Your task to perform on an android device: change the clock display to analog Image 0: 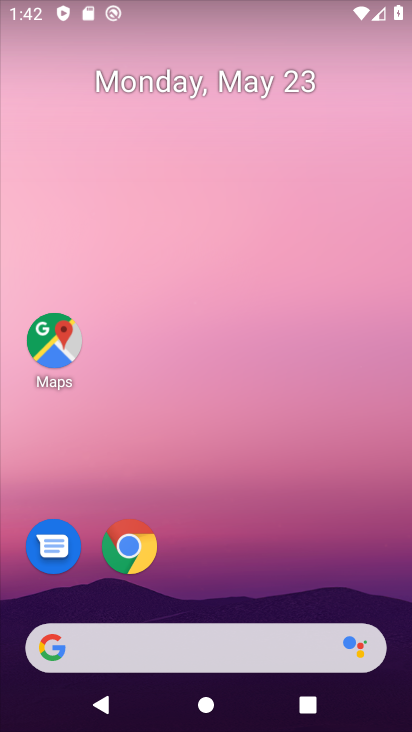
Step 0: drag from (222, 590) to (292, 100)
Your task to perform on an android device: change the clock display to analog Image 1: 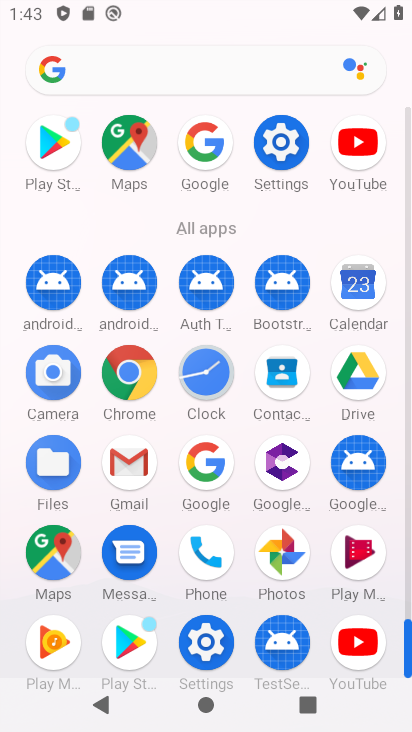
Step 1: click (225, 368)
Your task to perform on an android device: change the clock display to analog Image 2: 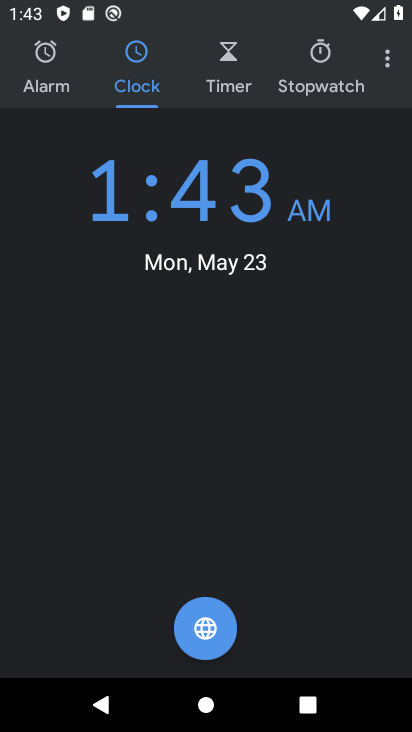
Step 2: click (385, 61)
Your task to perform on an android device: change the clock display to analog Image 3: 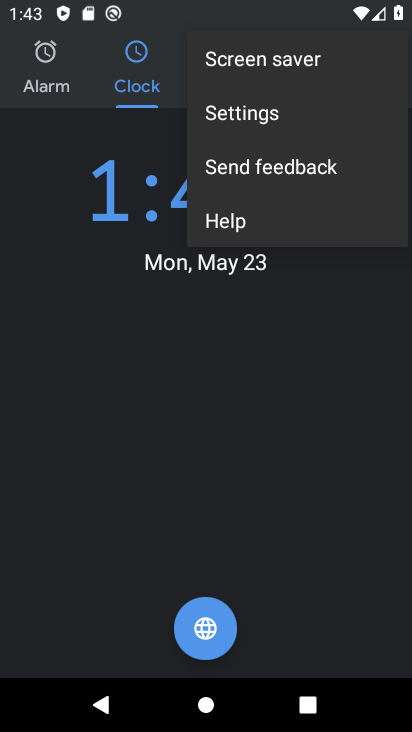
Step 3: click (267, 118)
Your task to perform on an android device: change the clock display to analog Image 4: 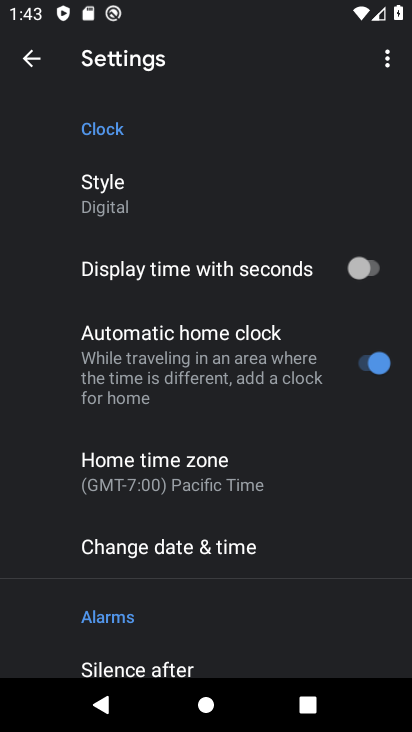
Step 4: click (126, 188)
Your task to perform on an android device: change the clock display to analog Image 5: 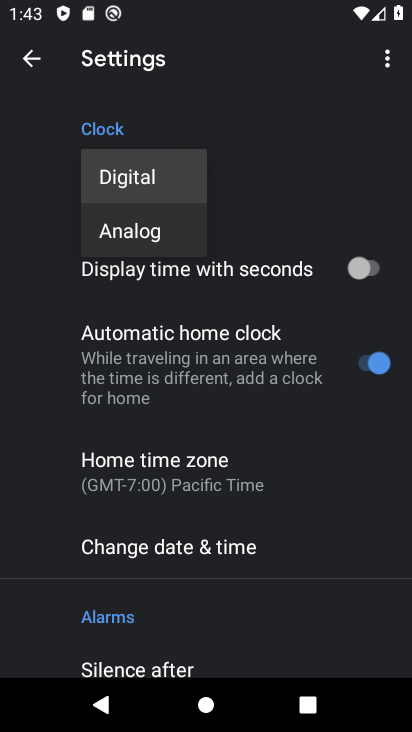
Step 5: click (128, 229)
Your task to perform on an android device: change the clock display to analog Image 6: 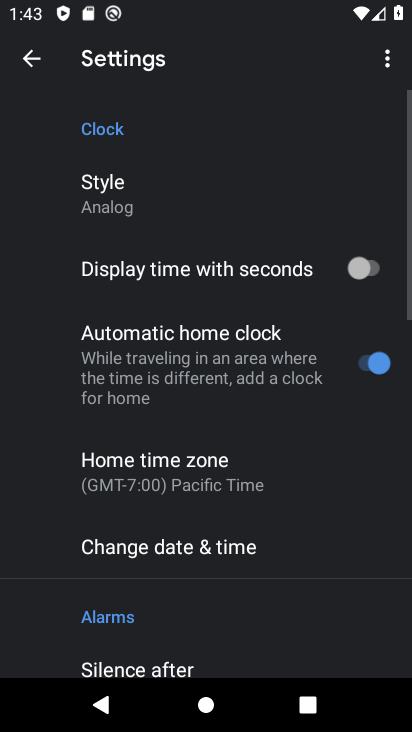
Step 6: task complete